Your task to perform on an android device: star an email in the gmail app Image 0: 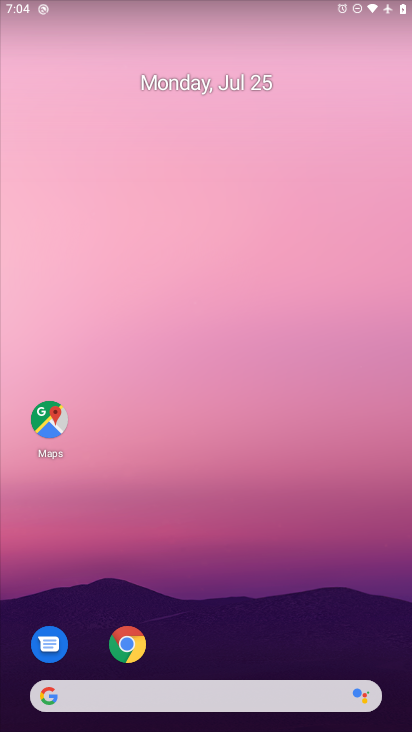
Step 0: press home button
Your task to perform on an android device: star an email in the gmail app Image 1: 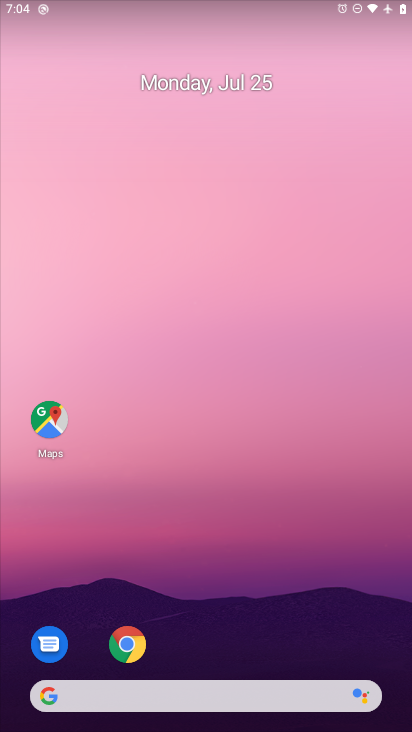
Step 1: drag from (265, 371) to (312, 169)
Your task to perform on an android device: star an email in the gmail app Image 2: 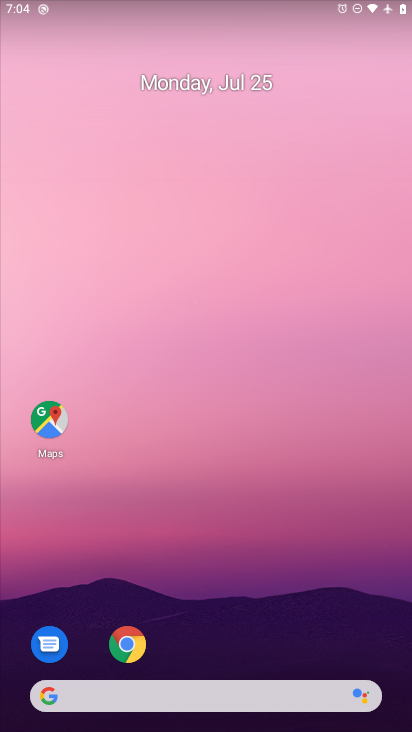
Step 2: drag from (276, 647) to (357, 2)
Your task to perform on an android device: star an email in the gmail app Image 3: 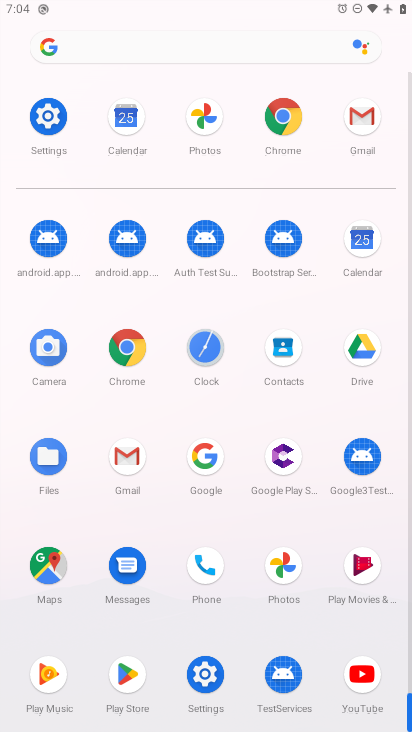
Step 3: click (368, 117)
Your task to perform on an android device: star an email in the gmail app Image 4: 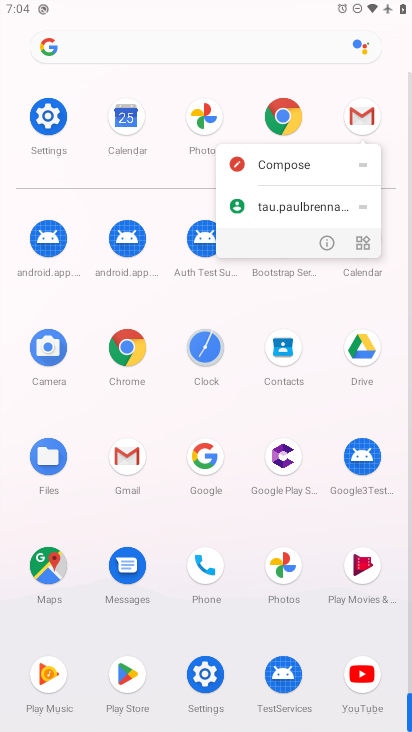
Step 4: click (368, 117)
Your task to perform on an android device: star an email in the gmail app Image 5: 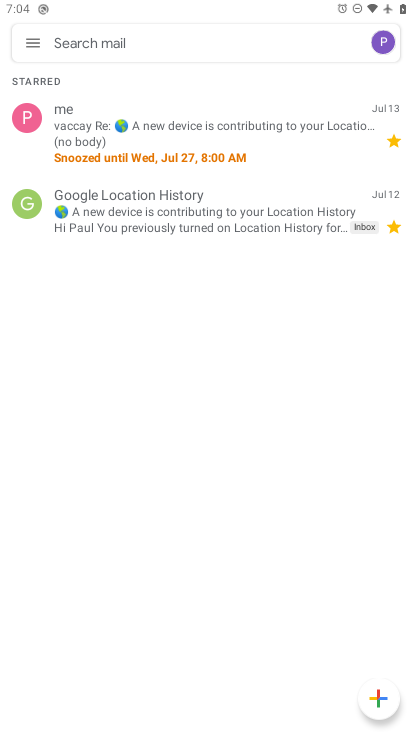
Step 5: click (31, 42)
Your task to perform on an android device: star an email in the gmail app Image 6: 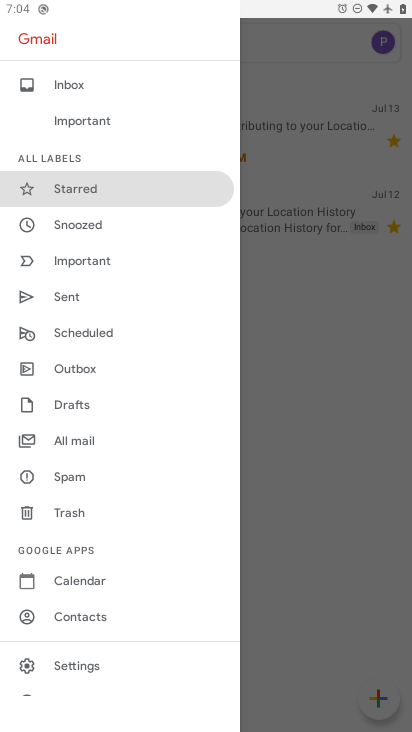
Step 6: click (77, 443)
Your task to perform on an android device: star an email in the gmail app Image 7: 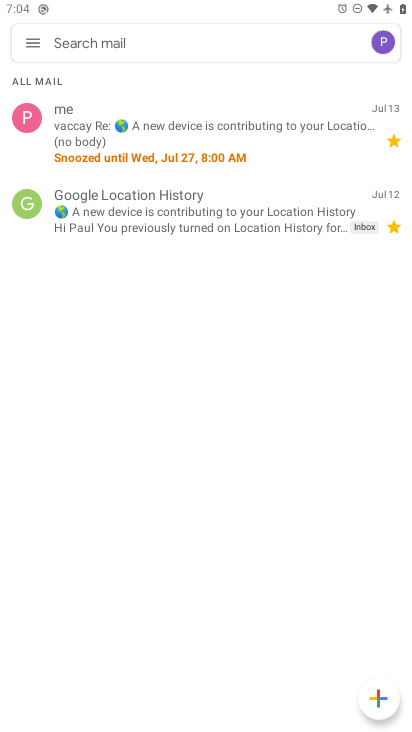
Step 7: click (293, 128)
Your task to perform on an android device: star an email in the gmail app Image 8: 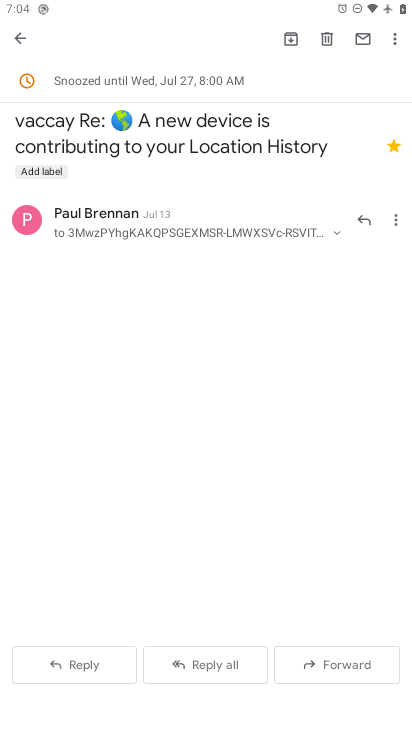
Step 8: task complete